Your task to perform on an android device: delete the emails in spam in the gmail app Image 0: 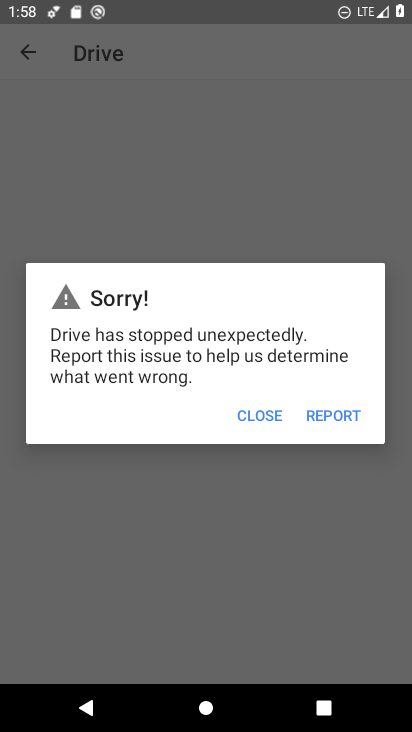
Step 0: press home button
Your task to perform on an android device: delete the emails in spam in the gmail app Image 1: 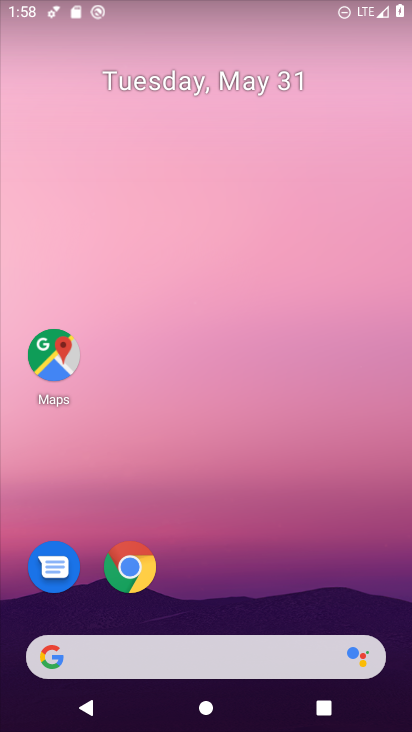
Step 1: drag from (238, 574) to (218, 206)
Your task to perform on an android device: delete the emails in spam in the gmail app Image 2: 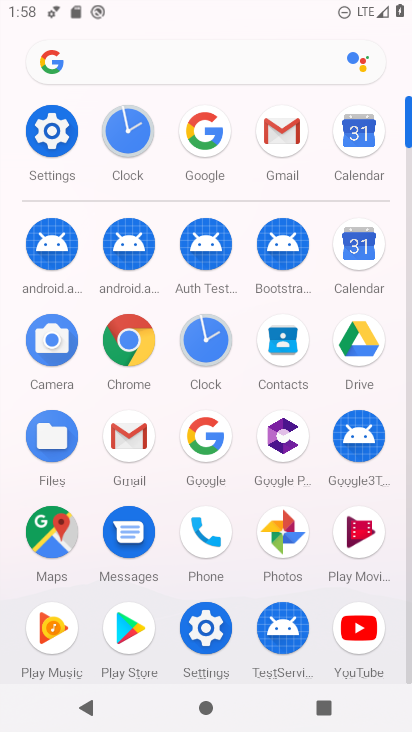
Step 2: click (264, 139)
Your task to perform on an android device: delete the emails in spam in the gmail app Image 3: 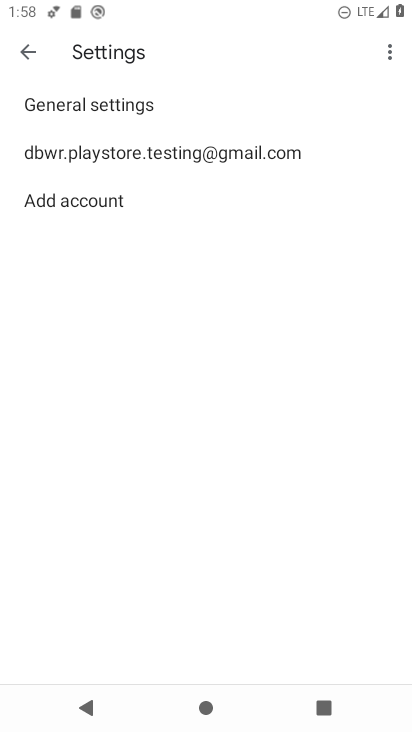
Step 3: click (32, 47)
Your task to perform on an android device: delete the emails in spam in the gmail app Image 4: 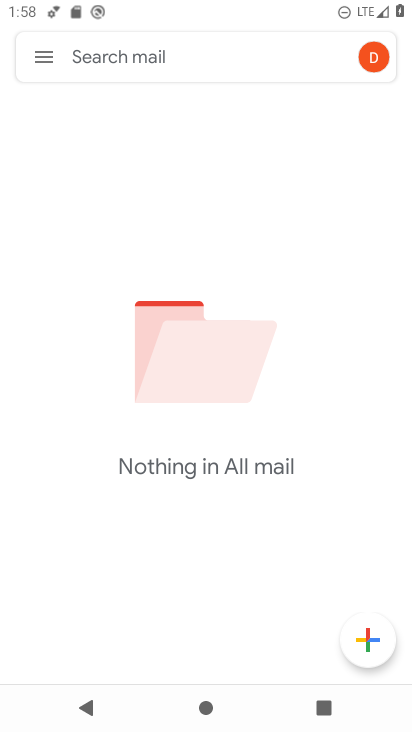
Step 4: click (52, 60)
Your task to perform on an android device: delete the emails in spam in the gmail app Image 5: 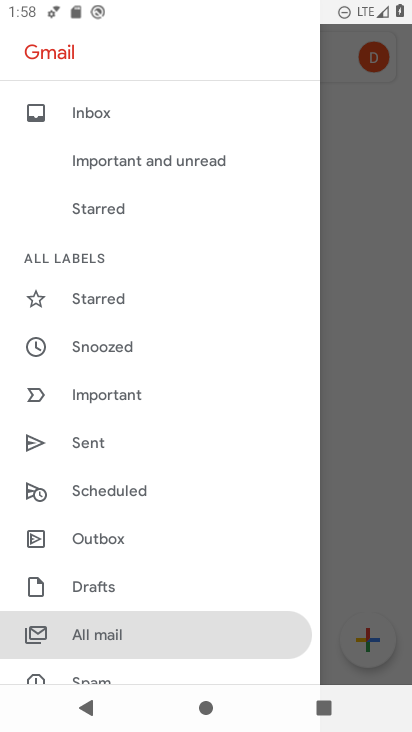
Step 5: click (127, 635)
Your task to perform on an android device: delete the emails in spam in the gmail app Image 6: 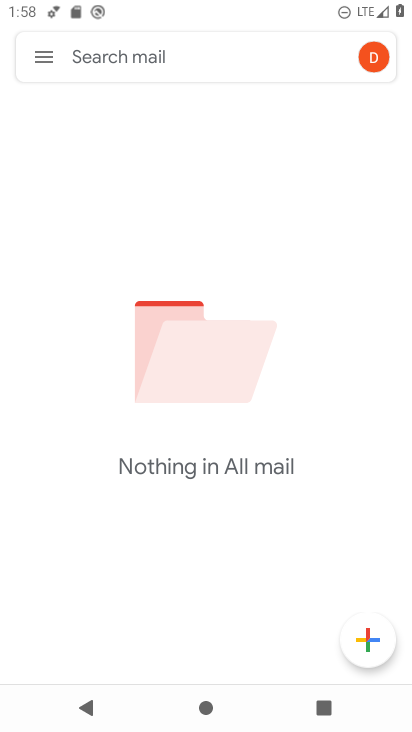
Step 6: task complete